Your task to perform on an android device: Open Maps and search for coffee Image 0: 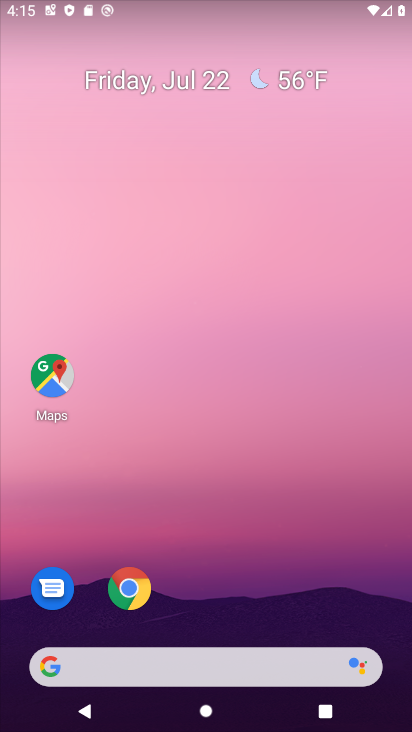
Step 0: click (57, 390)
Your task to perform on an android device: Open Maps and search for coffee Image 1: 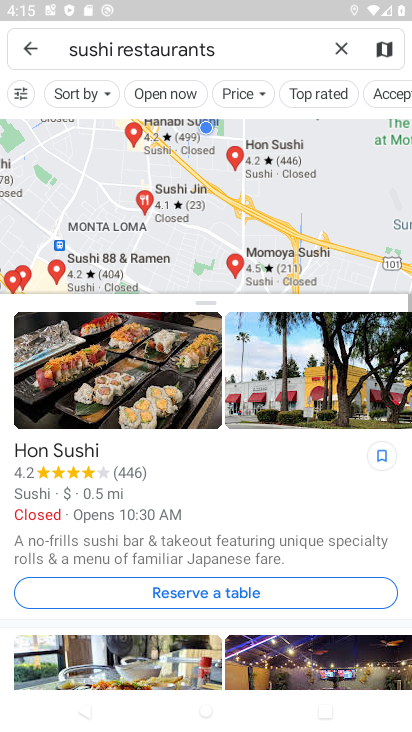
Step 1: click (336, 46)
Your task to perform on an android device: Open Maps and search for coffee Image 2: 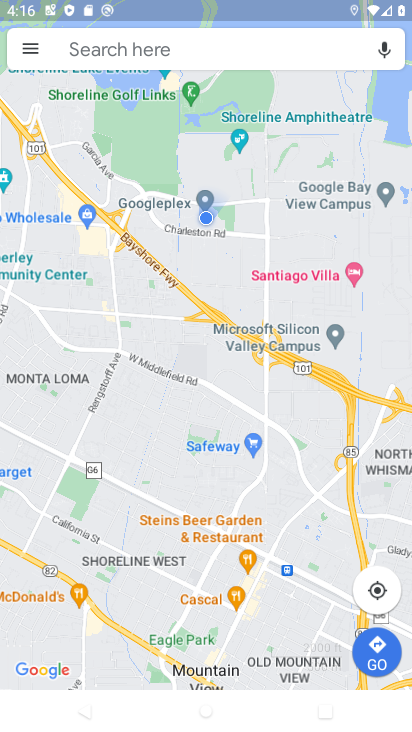
Step 2: click (202, 54)
Your task to perform on an android device: Open Maps and search for coffee Image 3: 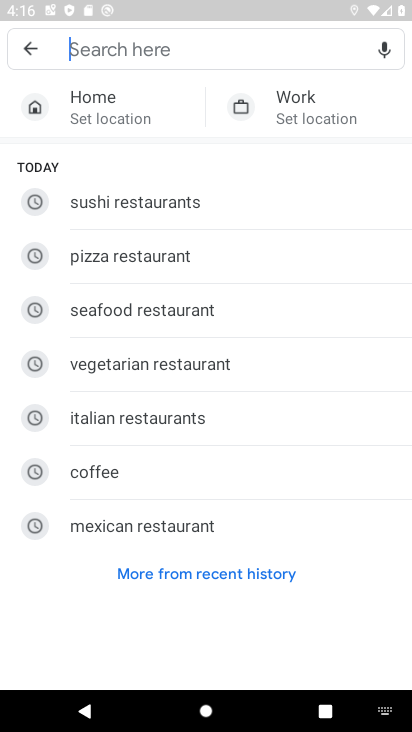
Step 3: type "coffee"
Your task to perform on an android device: Open Maps and search for coffee Image 4: 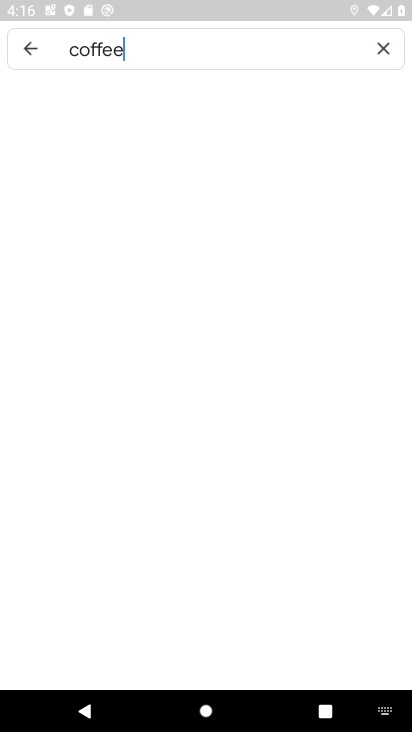
Step 4: type ""
Your task to perform on an android device: Open Maps and search for coffee Image 5: 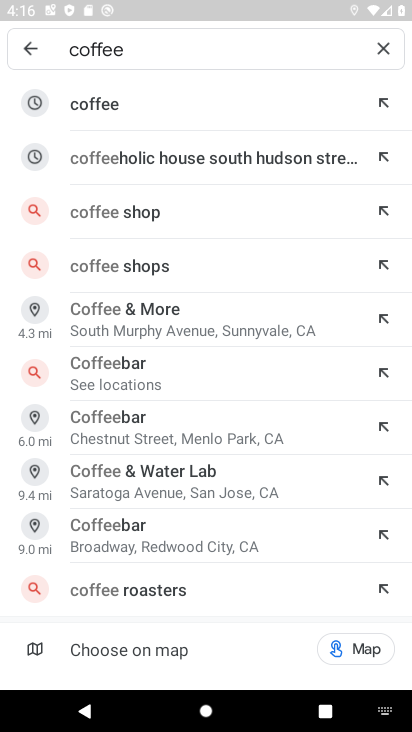
Step 5: click (143, 99)
Your task to perform on an android device: Open Maps and search for coffee Image 6: 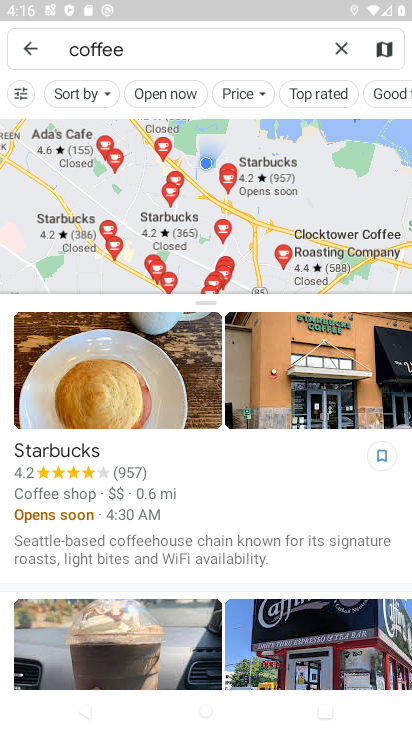
Step 6: task complete